Your task to perform on an android device: Open Yahoo.com Image 0: 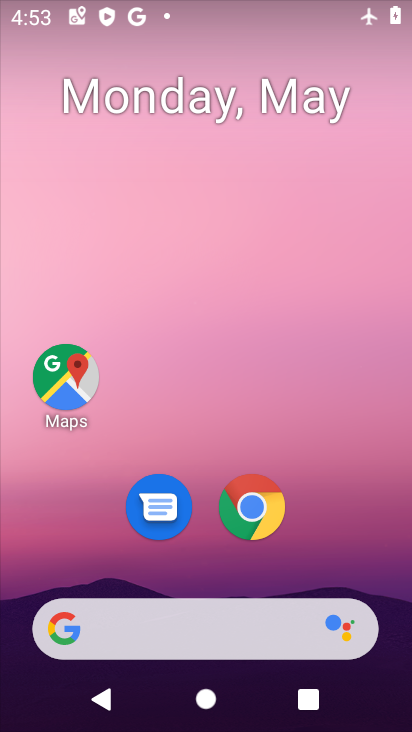
Step 0: click (253, 517)
Your task to perform on an android device: Open Yahoo.com Image 1: 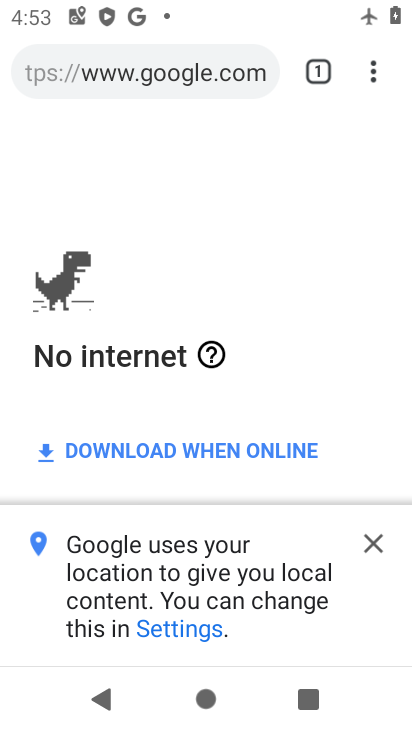
Step 1: click (191, 83)
Your task to perform on an android device: Open Yahoo.com Image 2: 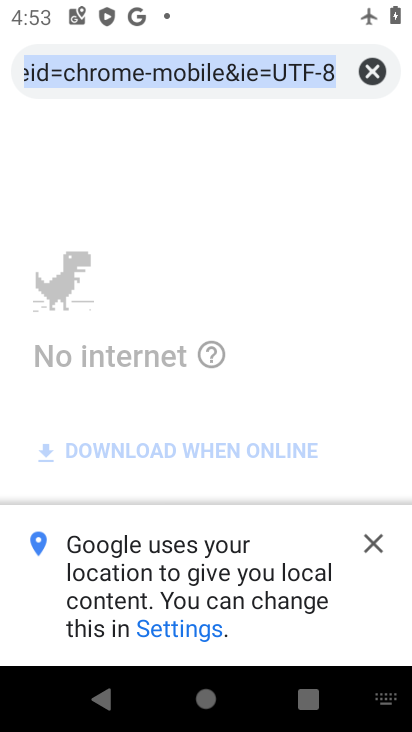
Step 2: click (370, 73)
Your task to perform on an android device: Open Yahoo.com Image 3: 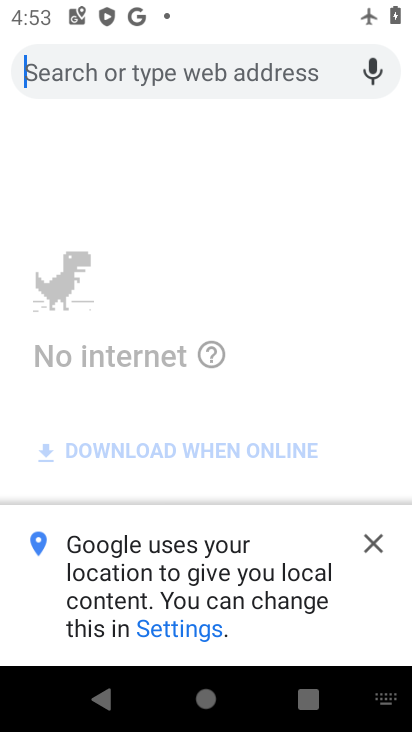
Step 3: type "yahoo"
Your task to perform on an android device: Open Yahoo.com Image 4: 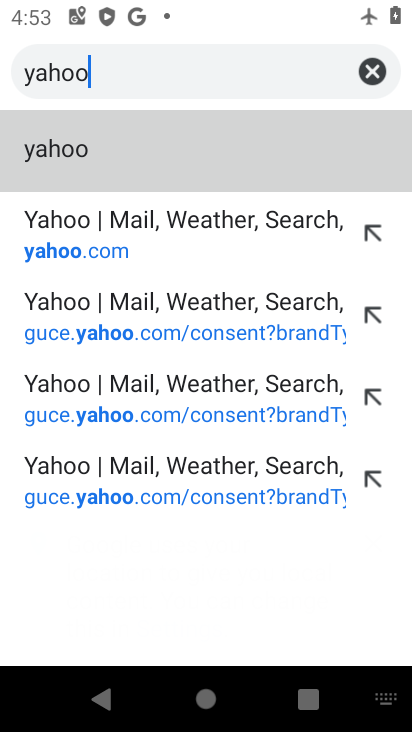
Step 4: click (77, 229)
Your task to perform on an android device: Open Yahoo.com Image 5: 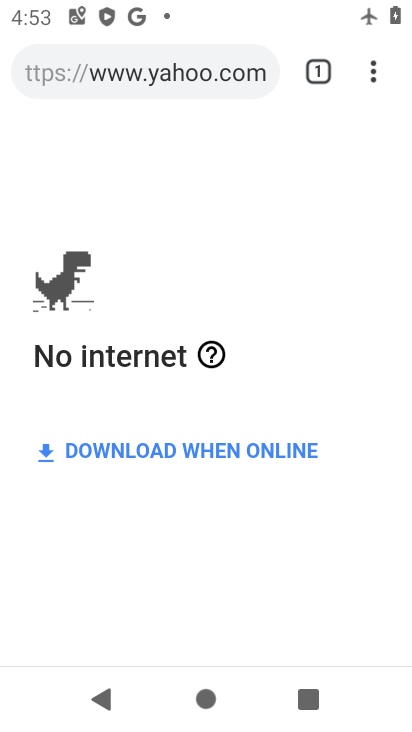
Step 5: task complete